Your task to perform on an android device: change notifications settings Image 0: 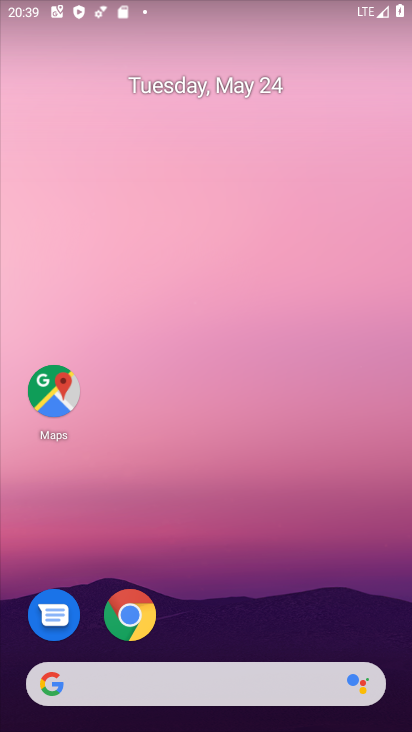
Step 0: drag from (246, 496) to (264, 211)
Your task to perform on an android device: change notifications settings Image 1: 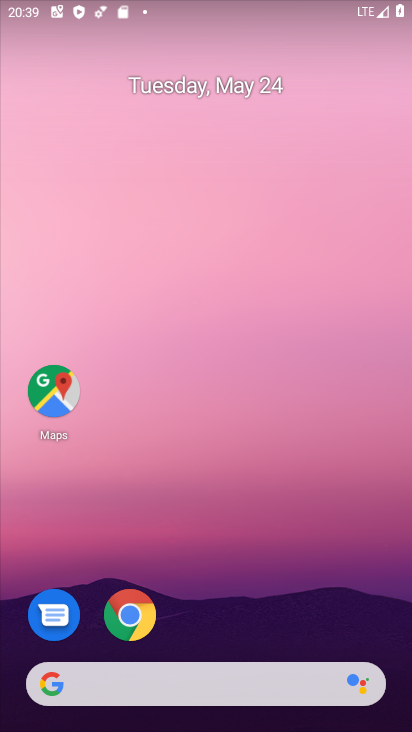
Step 1: drag from (248, 605) to (217, 237)
Your task to perform on an android device: change notifications settings Image 2: 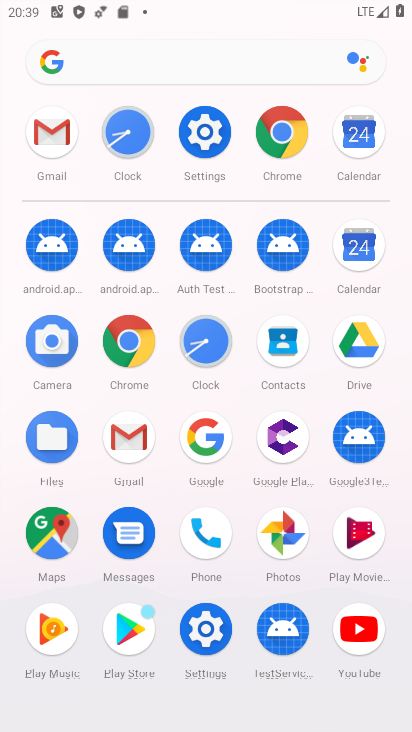
Step 2: click (197, 132)
Your task to perform on an android device: change notifications settings Image 3: 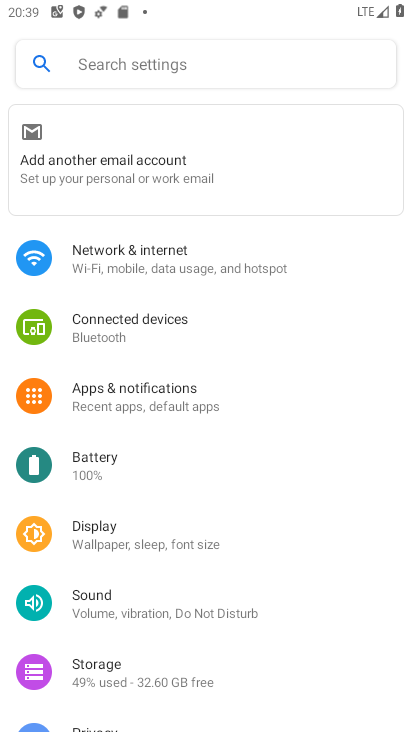
Step 3: click (166, 388)
Your task to perform on an android device: change notifications settings Image 4: 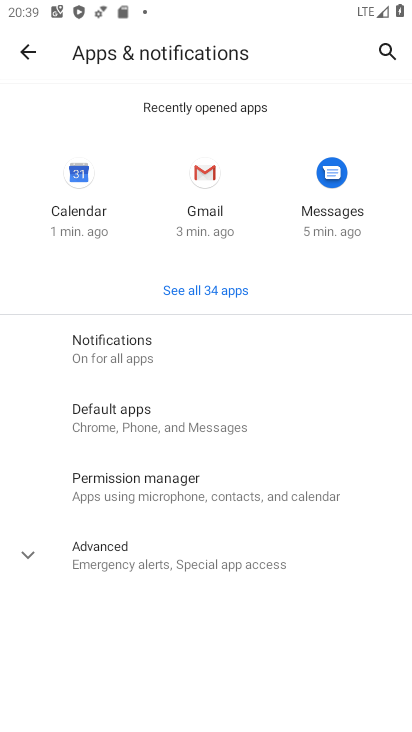
Step 4: click (148, 358)
Your task to perform on an android device: change notifications settings Image 5: 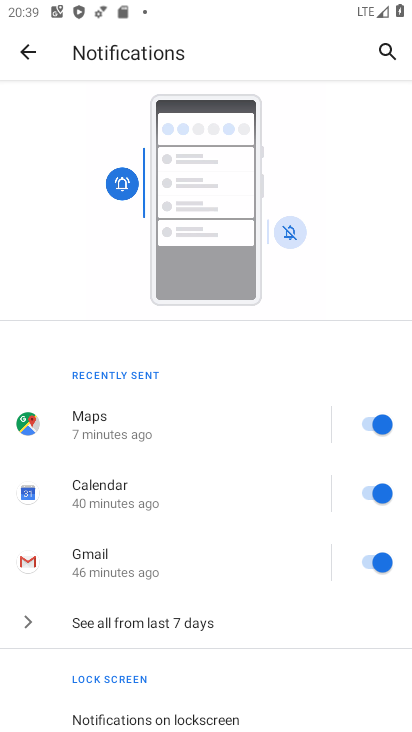
Step 5: click (184, 626)
Your task to perform on an android device: change notifications settings Image 6: 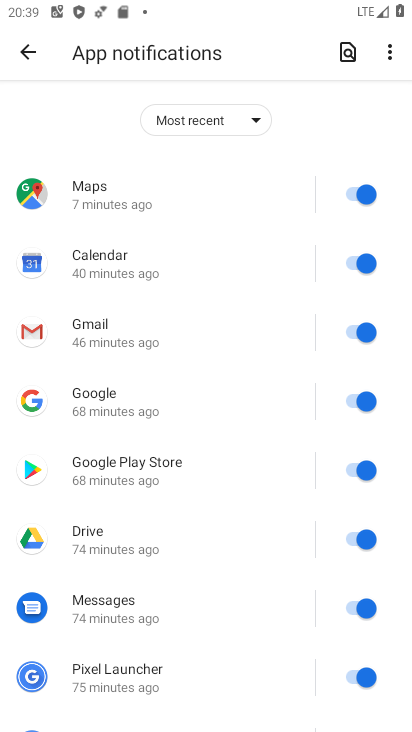
Step 6: drag from (247, 547) to (246, 346)
Your task to perform on an android device: change notifications settings Image 7: 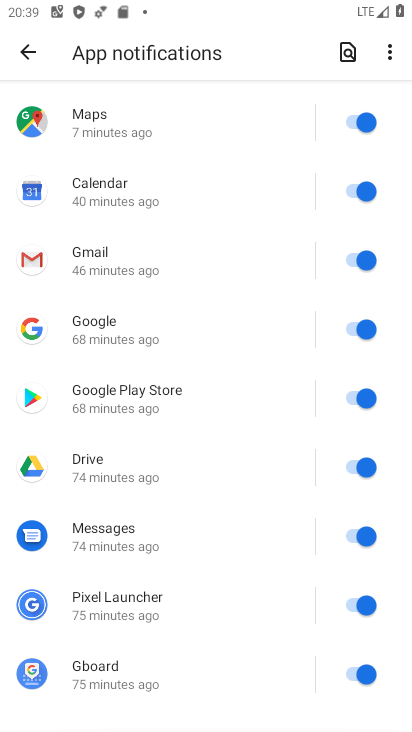
Step 7: click (357, 112)
Your task to perform on an android device: change notifications settings Image 8: 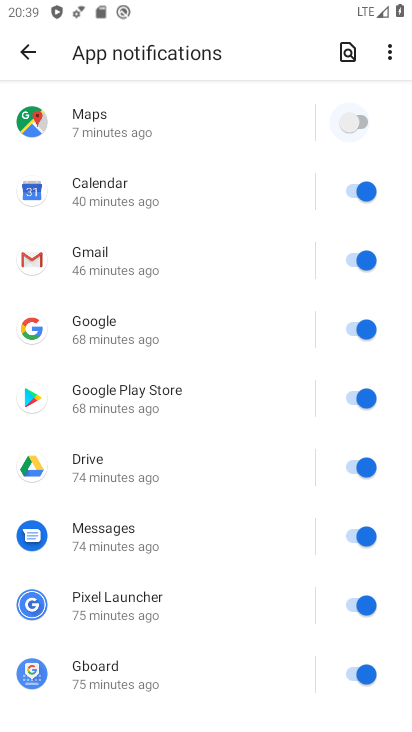
Step 8: click (349, 192)
Your task to perform on an android device: change notifications settings Image 9: 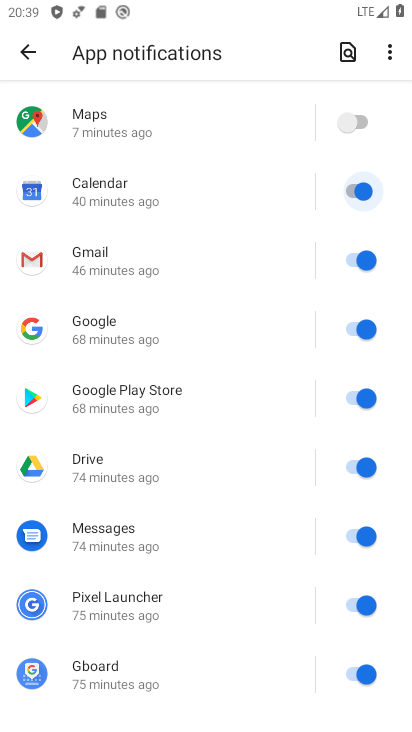
Step 9: click (354, 267)
Your task to perform on an android device: change notifications settings Image 10: 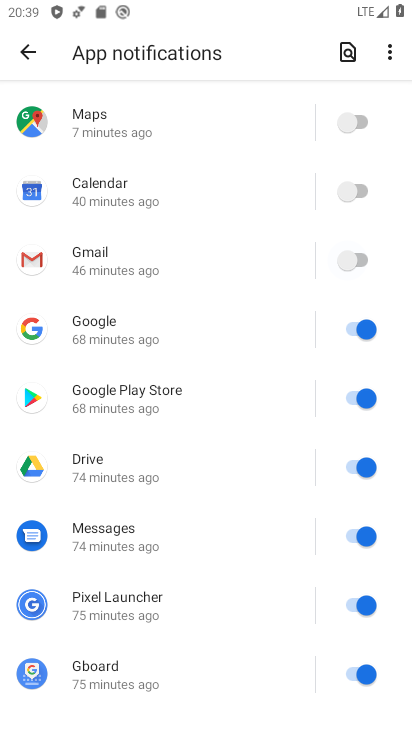
Step 10: click (358, 350)
Your task to perform on an android device: change notifications settings Image 11: 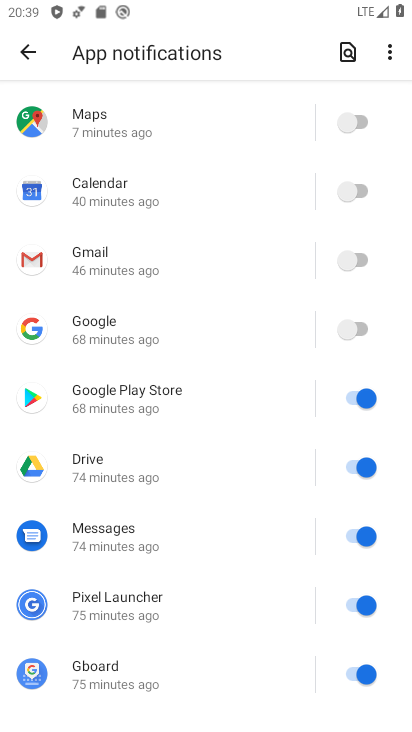
Step 11: click (351, 329)
Your task to perform on an android device: change notifications settings Image 12: 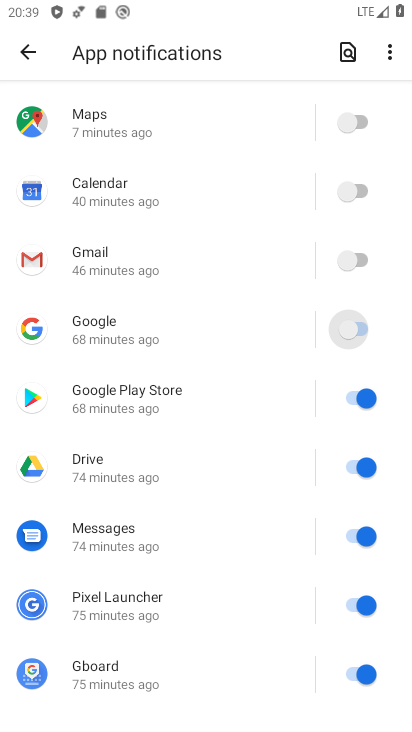
Step 12: click (351, 400)
Your task to perform on an android device: change notifications settings Image 13: 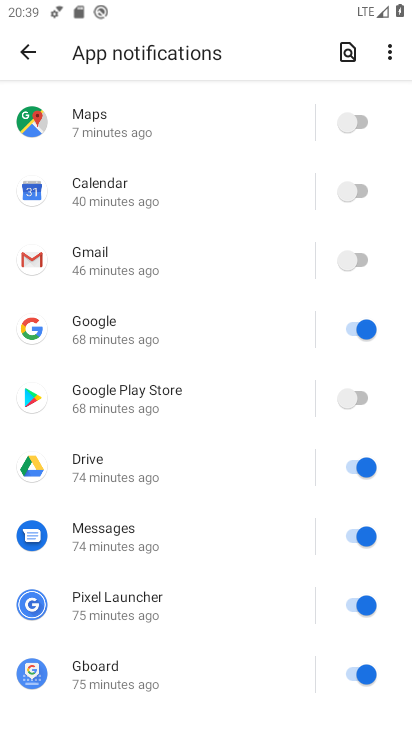
Step 13: click (351, 482)
Your task to perform on an android device: change notifications settings Image 14: 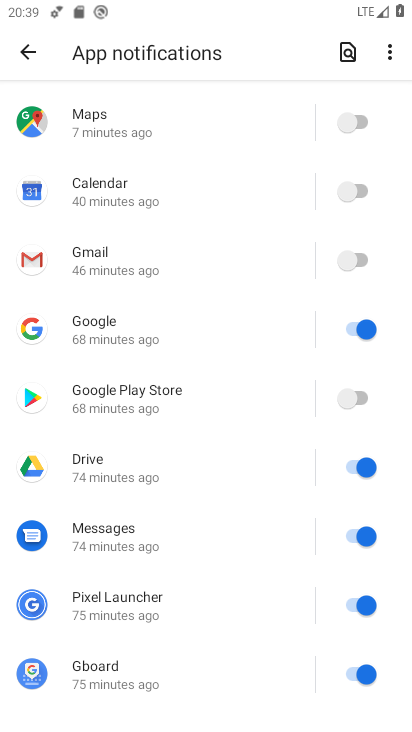
Step 14: click (360, 449)
Your task to perform on an android device: change notifications settings Image 15: 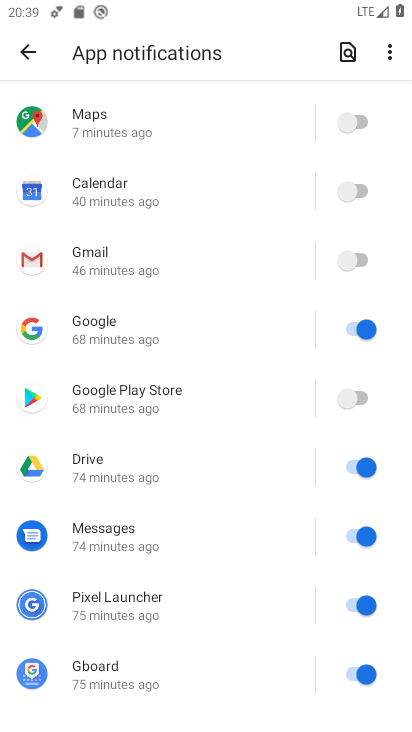
Step 15: click (363, 466)
Your task to perform on an android device: change notifications settings Image 16: 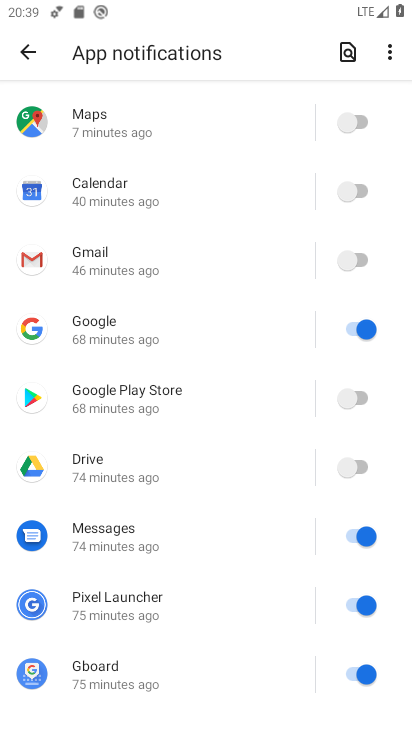
Step 16: click (355, 532)
Your task to perform on an android device: change notifications settings Image 17: 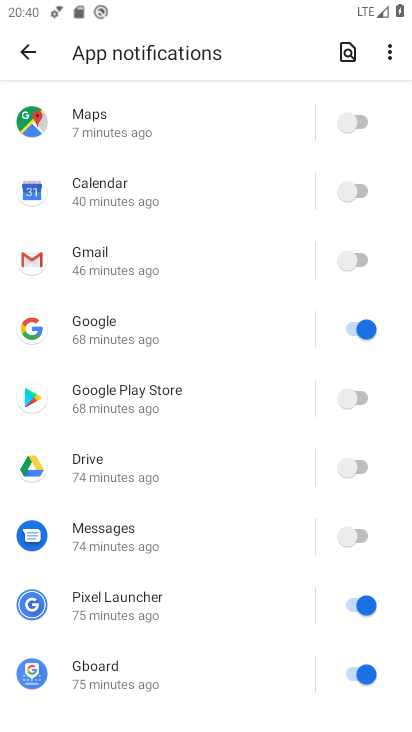
Step 17: click (359, 596)
Your task to perform on an android device: change notifications settings Image 18: 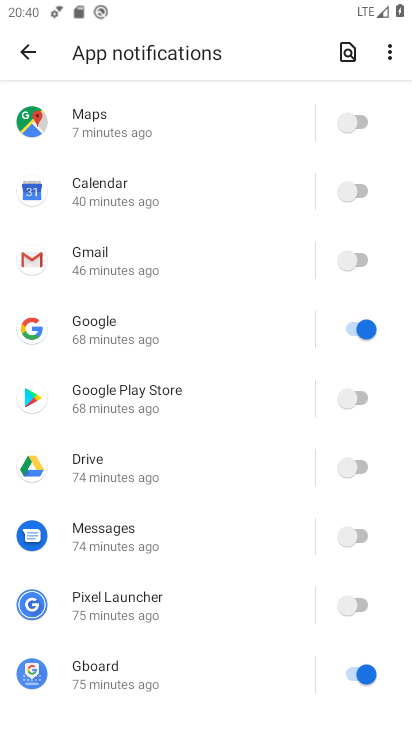
Step 18: click (354, 669)
Your task to perform on an android device: change notifications settings Image 19: 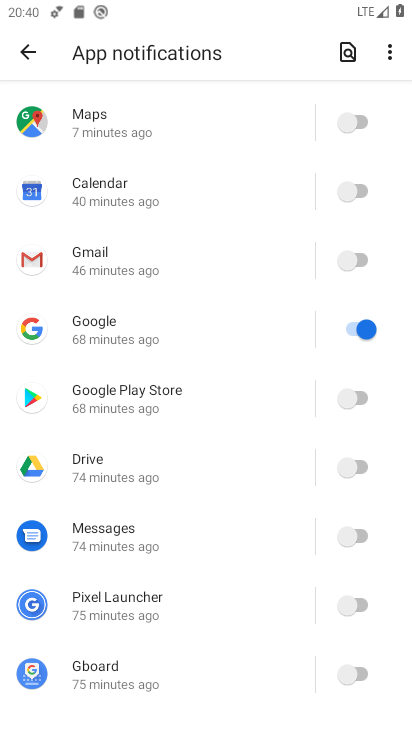
Step 19: task complete